Your task to perform on an android device: turn off smart reply in the gmail app Image 0: 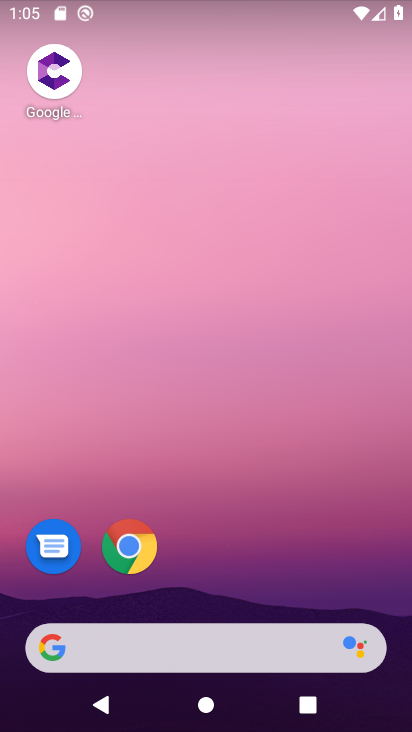
Step 0: drag from (235, 728) to (247, 218)
Your task to perform on an android device: turn off smart reply in the gmail app Image 1: 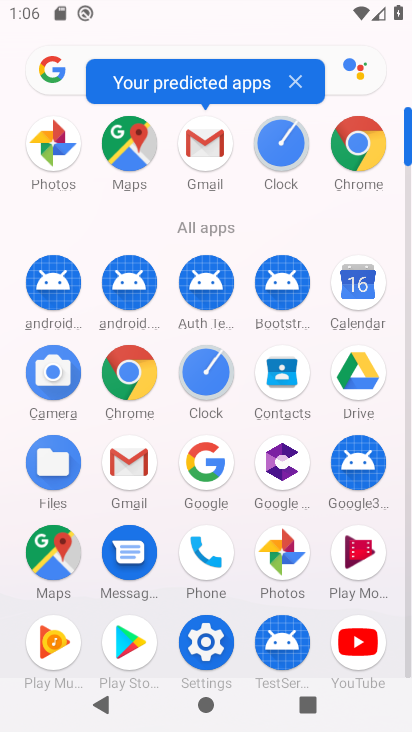
Step 1: click (131, 462)
Your task to perform on an android device: turn off smart reply in the gmail app Image 2: 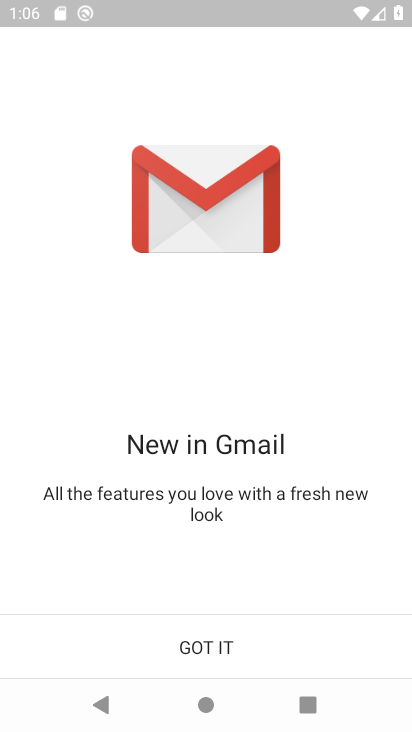
Step 2: click (205, 644)
Your task to perform on an android device: turn off smart reply in the gmail app Image 3: 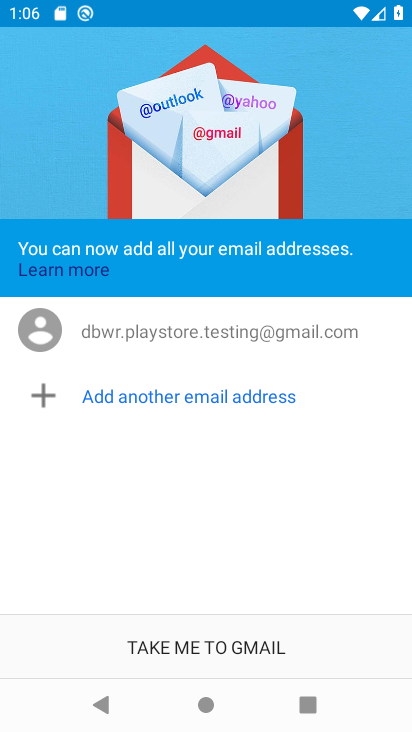
Step 3: click (205, 644)
Your task to perform on an android device: turn off smart reply in the gmail app Image 4: 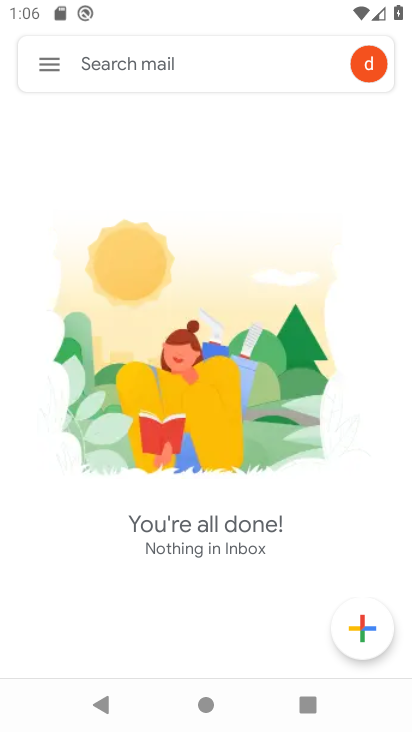
Step 4: click (39, 66)
Your task to perform on an android device: turn off smart reply in the gmail app Image 5: 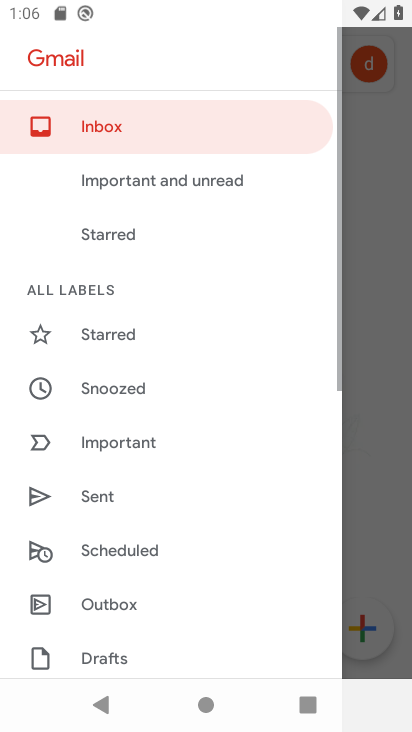
Step 5: drag from (144, 639) to (162, 249)
Your task to perform on an android device: turn off smart reply in the gmail app Image 6: 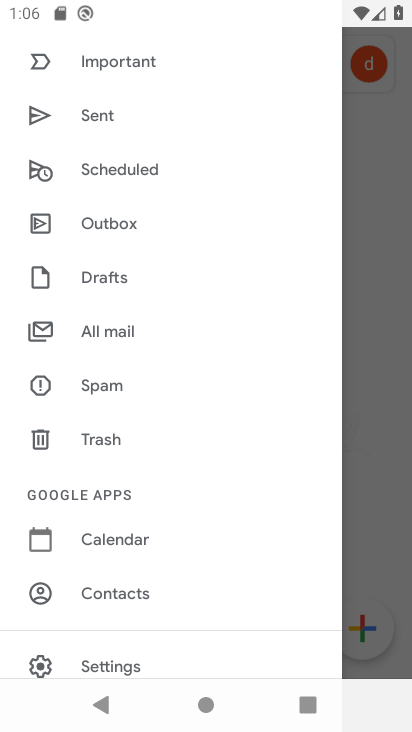
Step 6: click (117, 658)
Your task to perform on an android device: turn off smart reply in the gmail app Image 7: 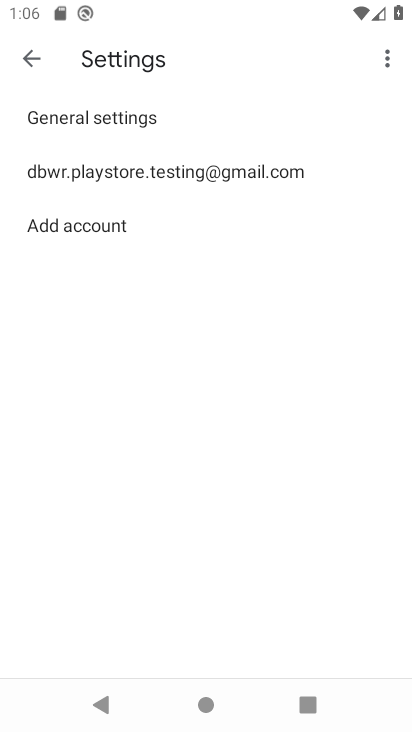
Step 7: click (131, 172)
Your task to perform on an android device: turn off smart reply in the gmail app Image 8: 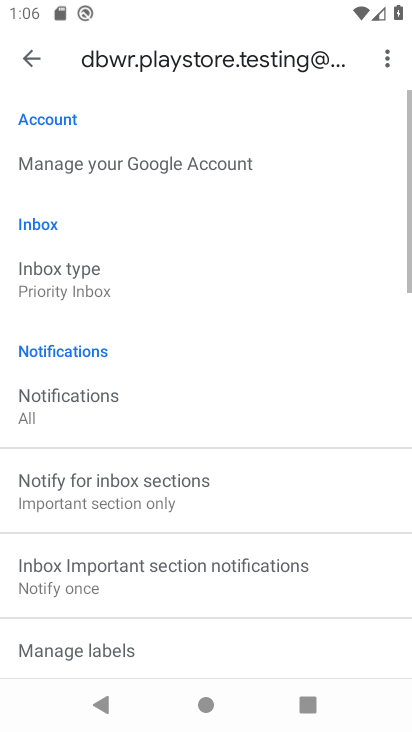
Step 8: drag from (134, 632) to (183, 224)
Your task to perform on an android device: turn off smart reply in the gmail app Image 9: 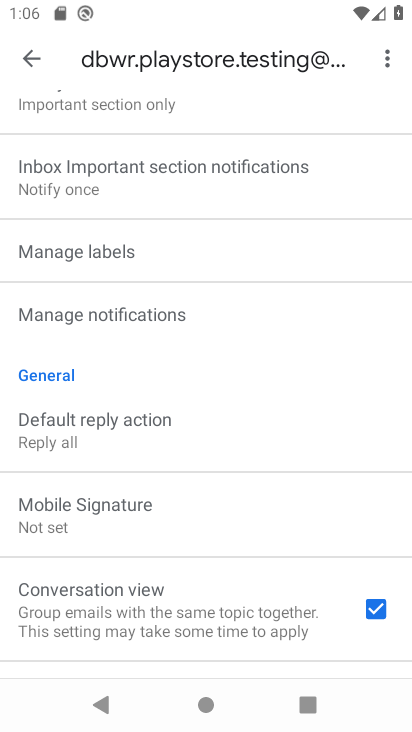
Step 9: drag from (182, 638) to (201, 373)
Your task to perform on an android device: turn off smart reply in the gmail app Image 10: 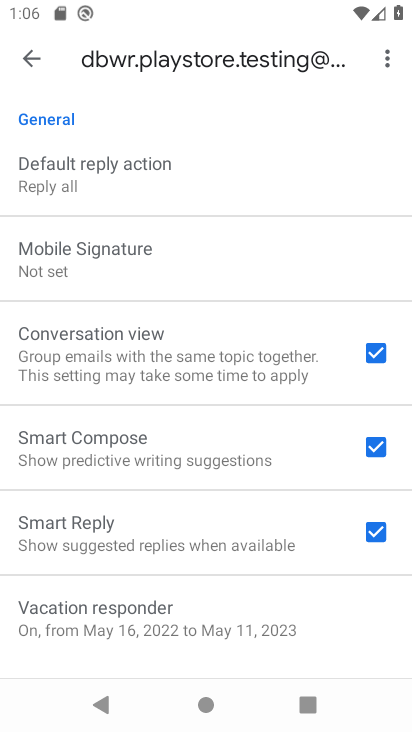
Step 10: click (378, 529)
Your task to perform on an android device: turn off smart reply in the gmail app Image 11: 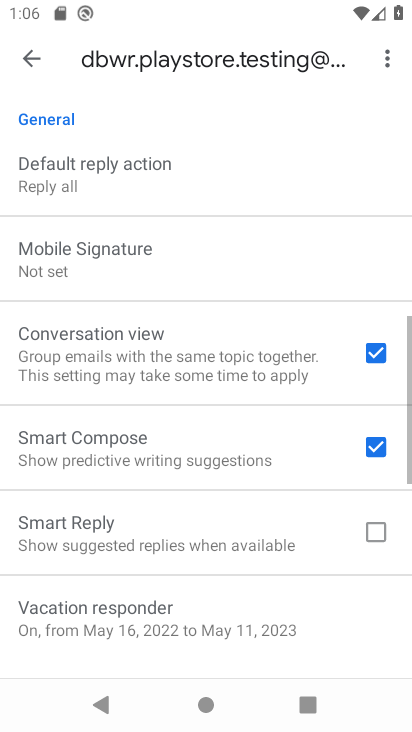
Step 11: task complete